Your task to perform on an android device: turn on airplane mode Image 0: 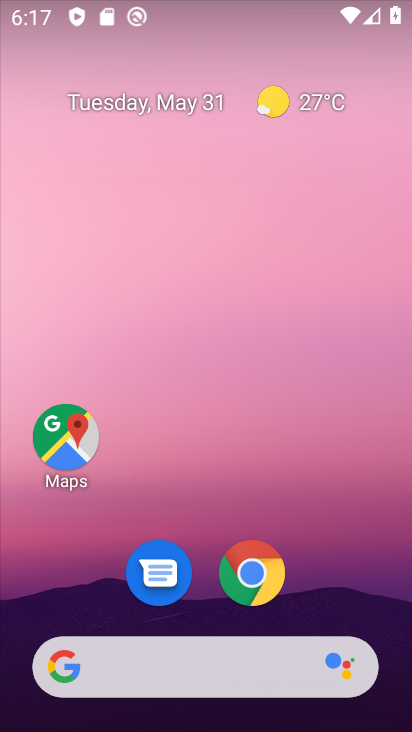
Step 0: drag from (269, 0) to (358, 659)
Your task to perform on an android device: turn on airplane mode Image 1: 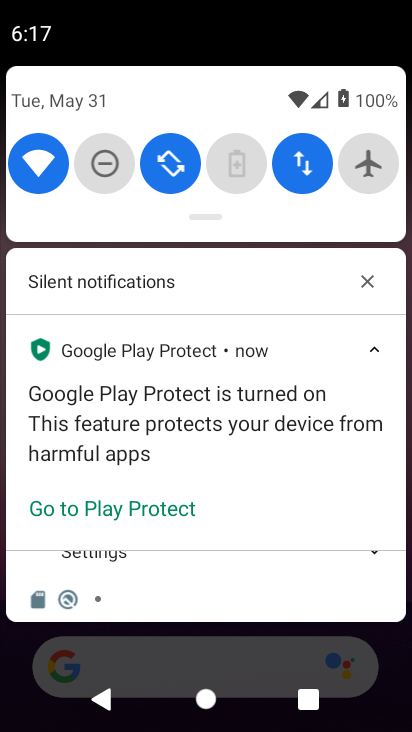
Step 1: click (369, 153)
Your task to perform on an android device: turn on airplane mode Image 2: 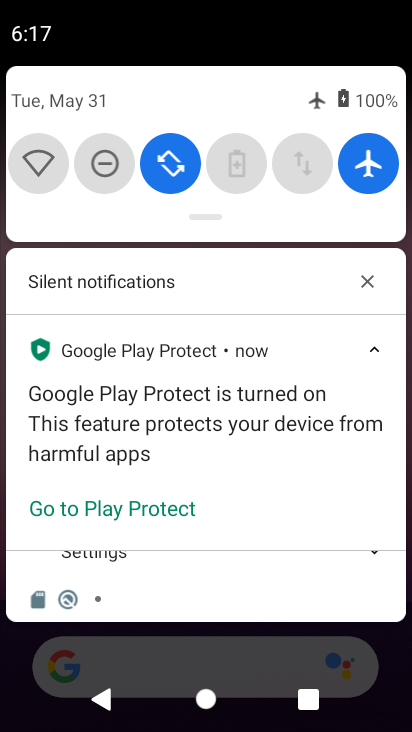
Step 2: task complete